Your task to perform on an android device: Open the stopwatch Image 0: 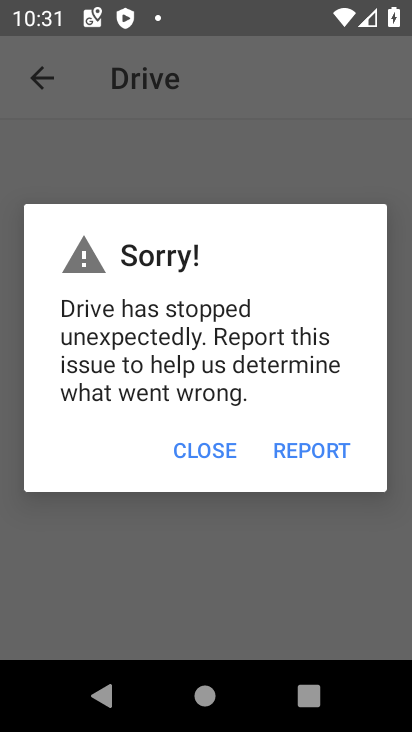
Step 0: press home button
Your task to perform on an android device: Open the stopwatch Image 1: 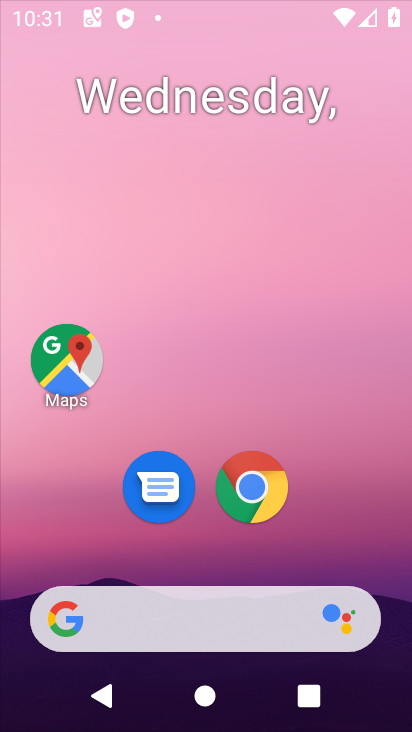
Step 1: drag from (305, 671) to (335, 150)
Your task to perform on an android device: Open the stopwatch Image 2: 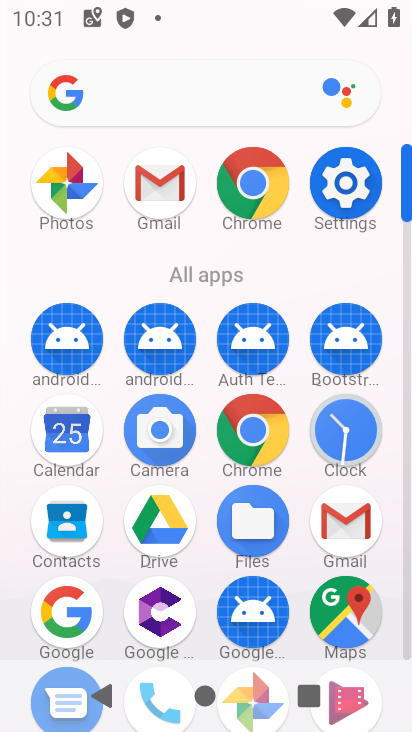
Step 2: click (341, 428)
Your task to perform on an android device: Open the stopwatch Image 3: 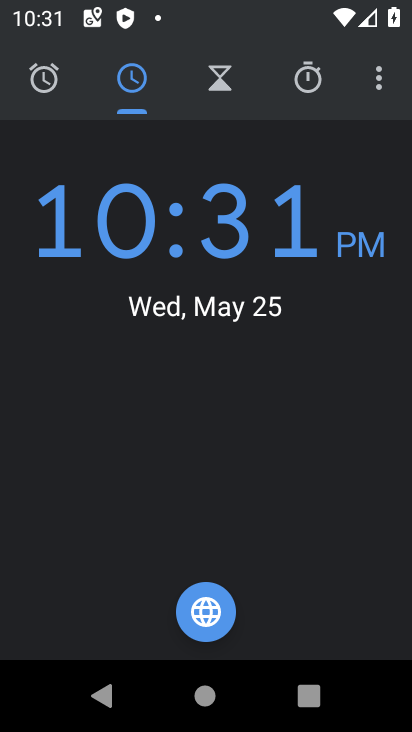
Step 3: click (309, 92)
Your task to perform on an android device: Open the stopwatch Image 4: 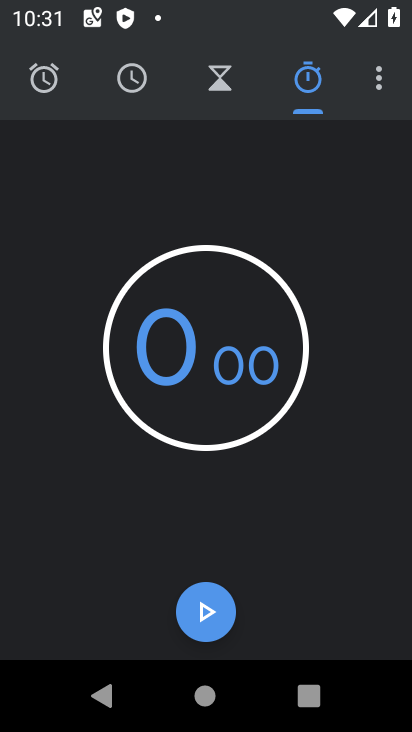
Step 4: click (204, 610)
Your task to perform on an android device: Open the stopwatch Image 5: 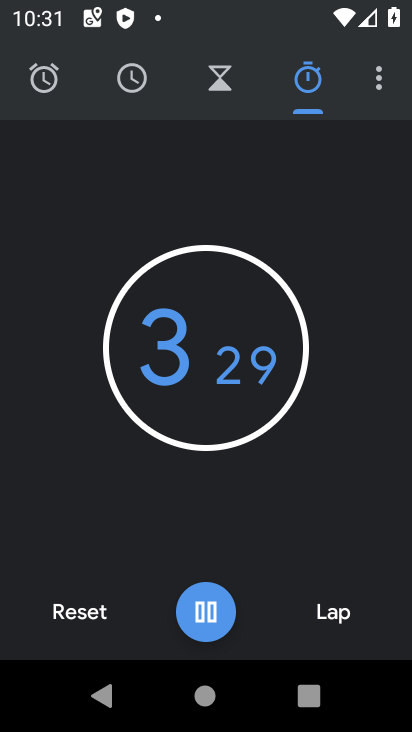
Step 5: task complete